Your task to perform on an android device: Search for sushi restaurants on Maps Image 0: 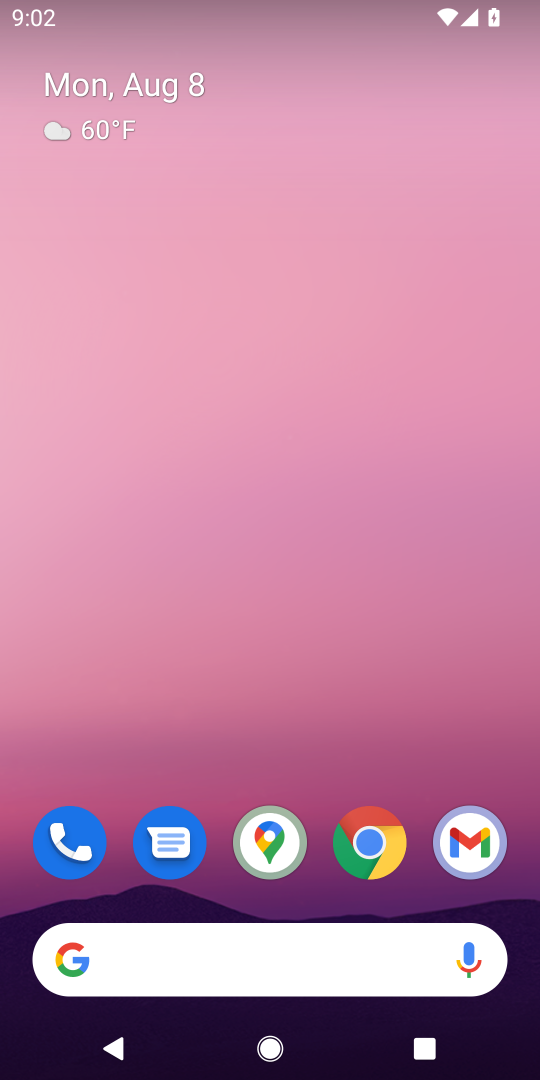
Step 0: click (258, 831)
Your task to perform on an android device: Search for sushi restaurants on Maps Image 1: 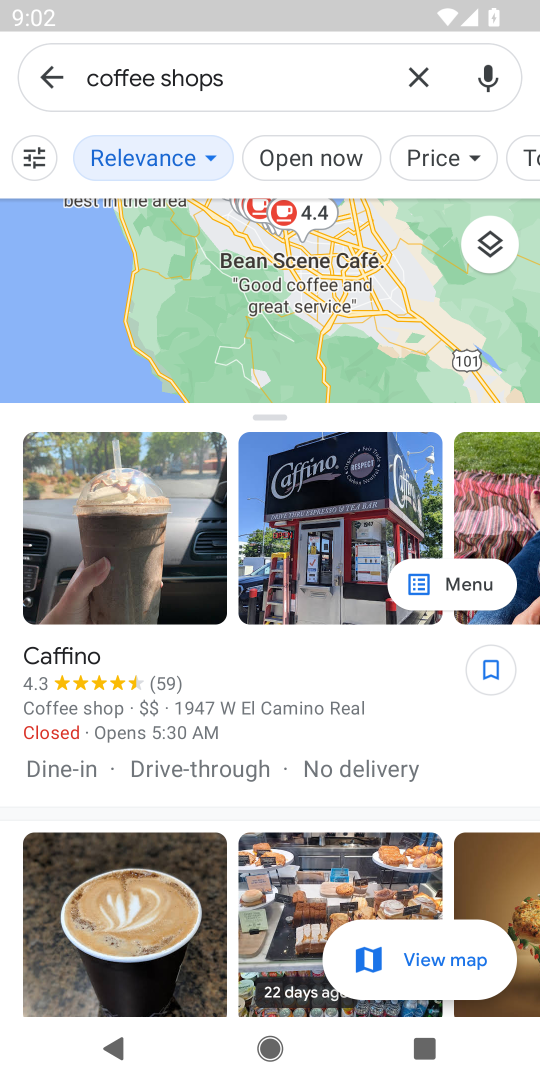
Step 1: click (420, 73)
Your task to perform on an android device: Search for sushi restaurants on Maps Image 2: 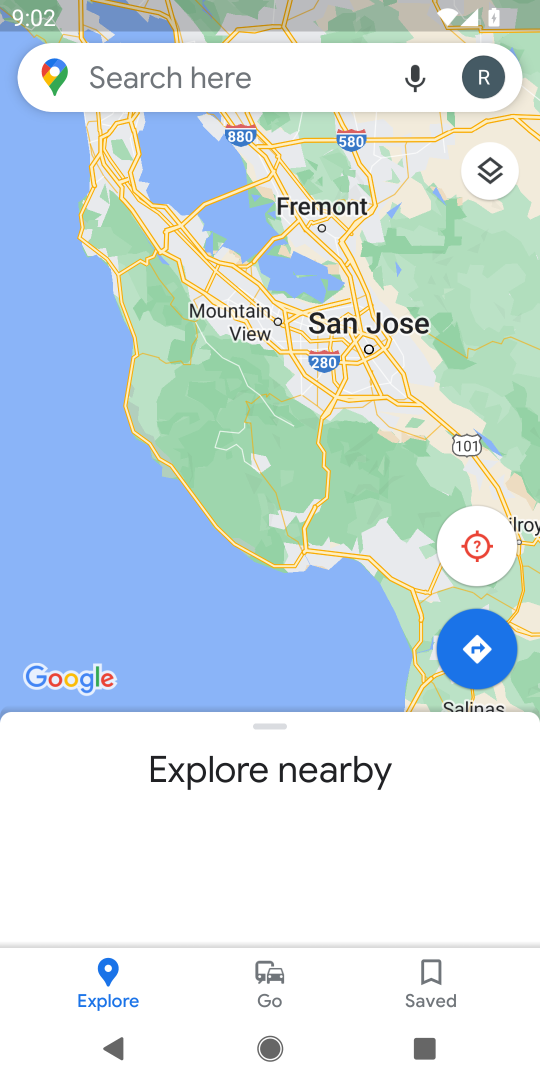
Step 2: click (282, 70)
Your task to perform on an android device: Search for sushi restaurants on Maps Image 3: 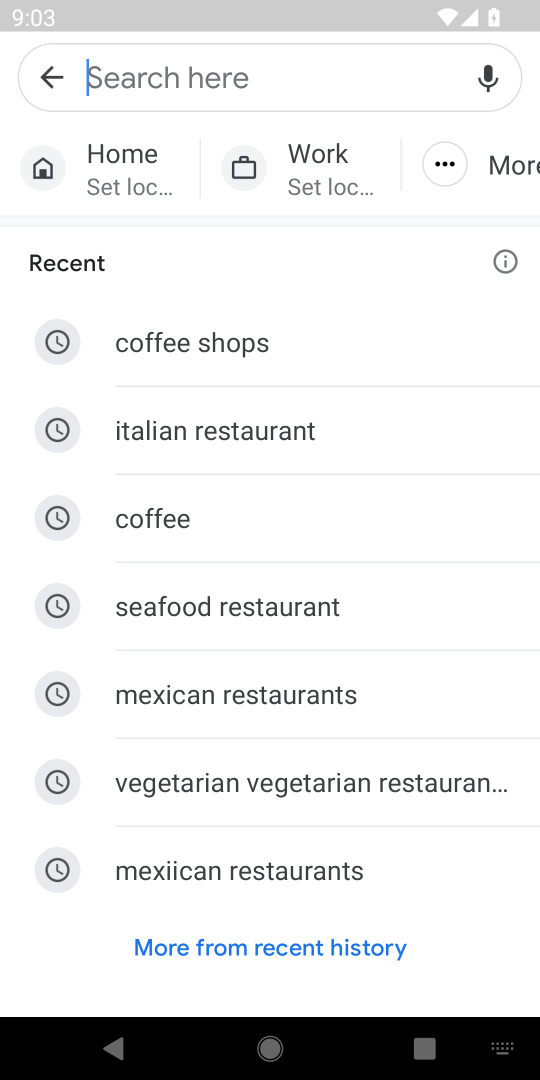
Step 3: type "sushi restaurants"
Your task to perform on an android device: Search for sushi restaurants on Maps Image 4: 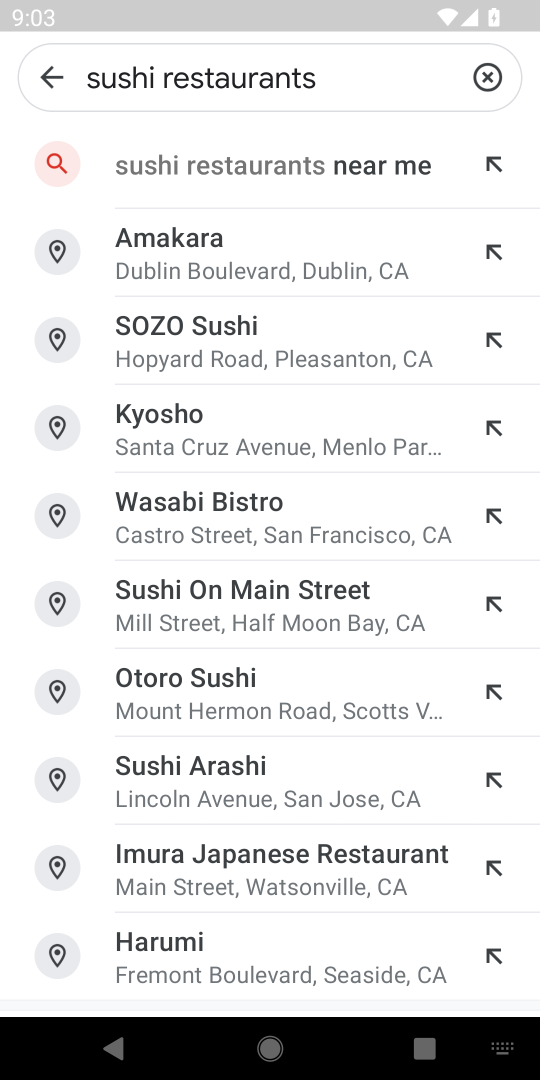
Step 4: click (250, 180)
Your task to perform on an android device: Search for sushi restaurants on Maps Image 5: 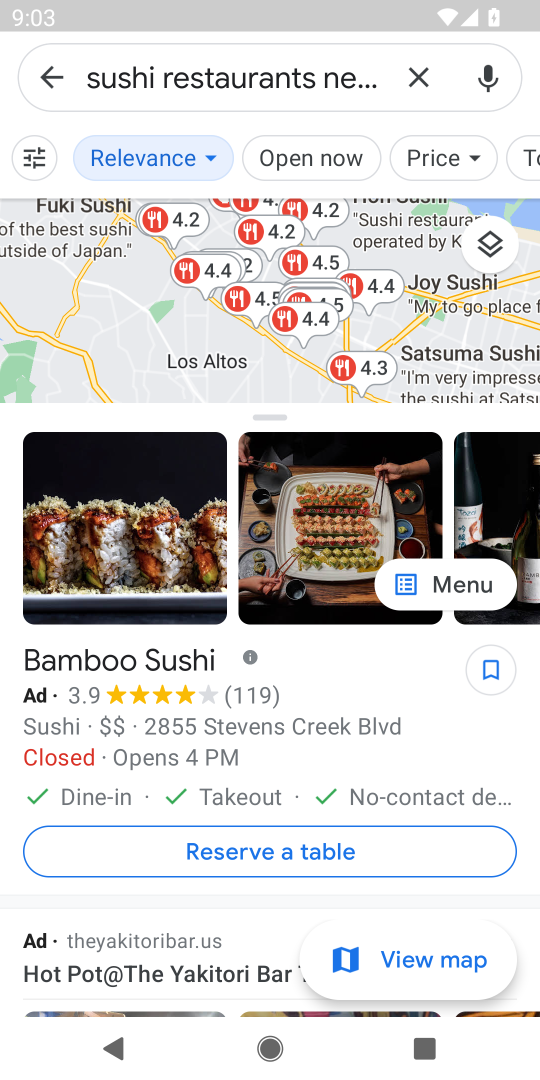
Step 5: task complete